Your task to perform on an android device: turn on sleep mode Image 0: 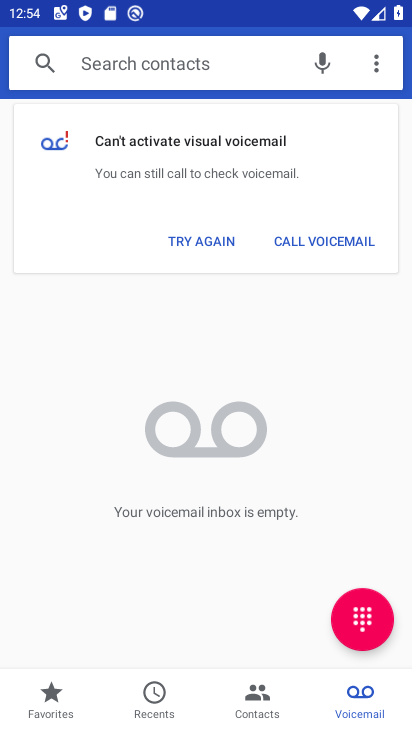
Step 0: press home button
Your task to perform on an android device: turn on sleep mode Image 1: 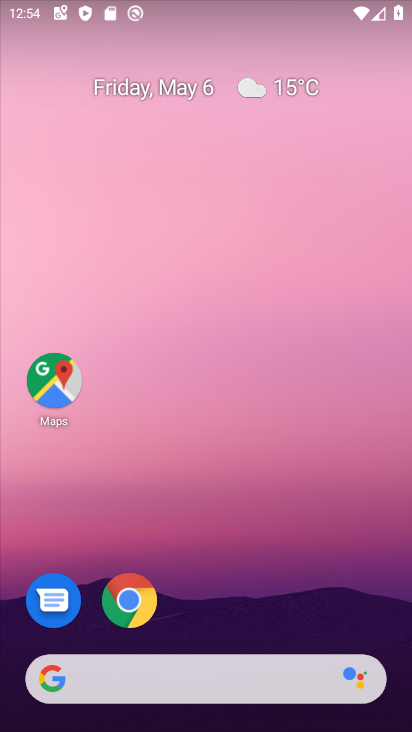
Step 1: drag from (354, 626) to (315, 164)
Your task to perform on an android device: turn on sleep mode Image 2: 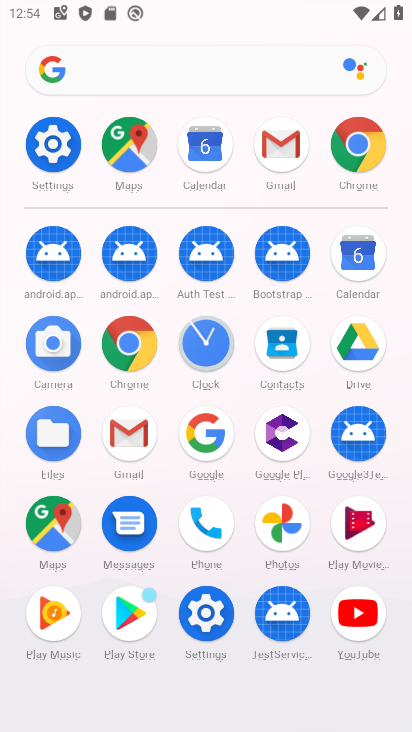
Step 2: click (48, 148)
Your task to perform on an android device: turn on sleep mode Image 3: 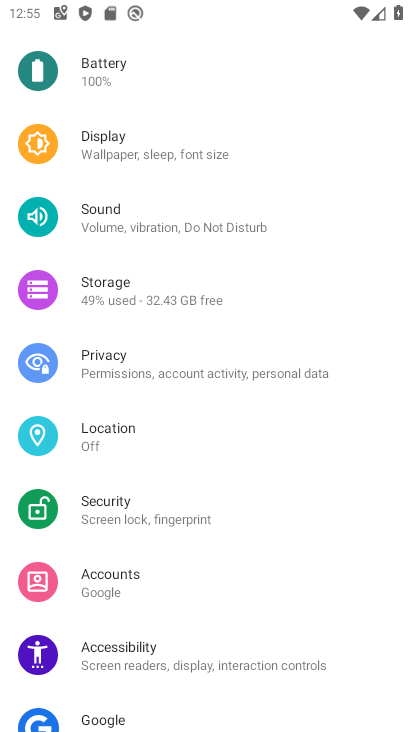
Step 3: task complete